Your task to perform on an android device: Go to Yahoo.com Image 0: 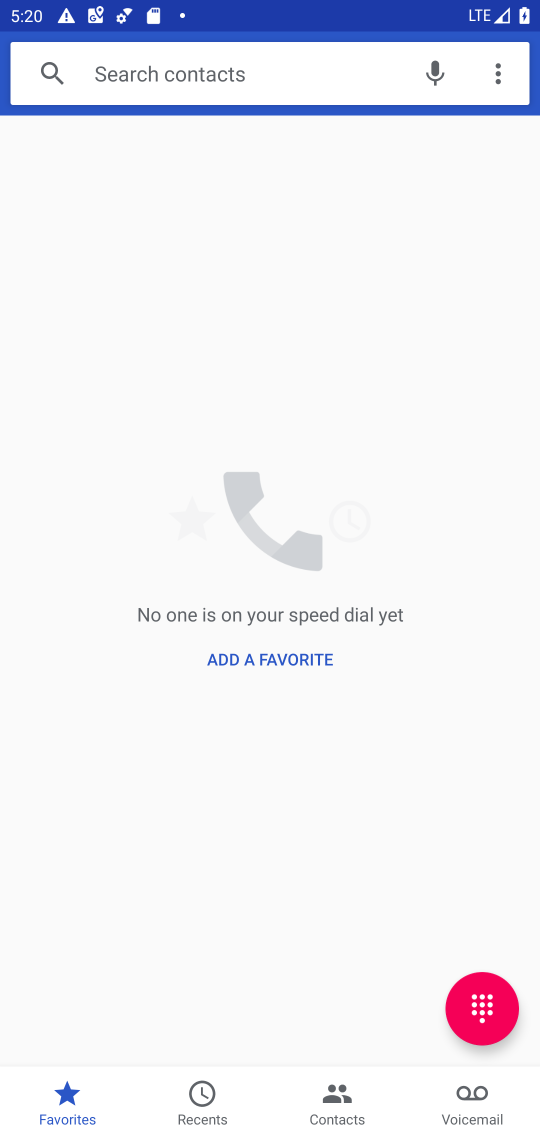
Step 0: press home button
Your task to perform on an android device: Go to Yahoo.com Image 1: 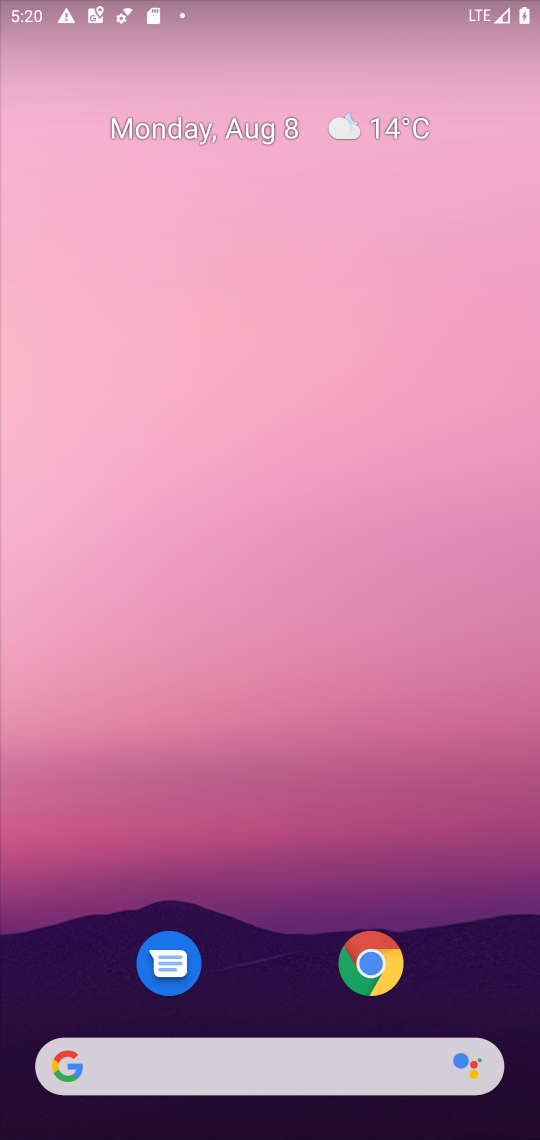
Step 1: click (363, 961)
Your task to perform on an android device: Go to Yahoo.com Image 2: 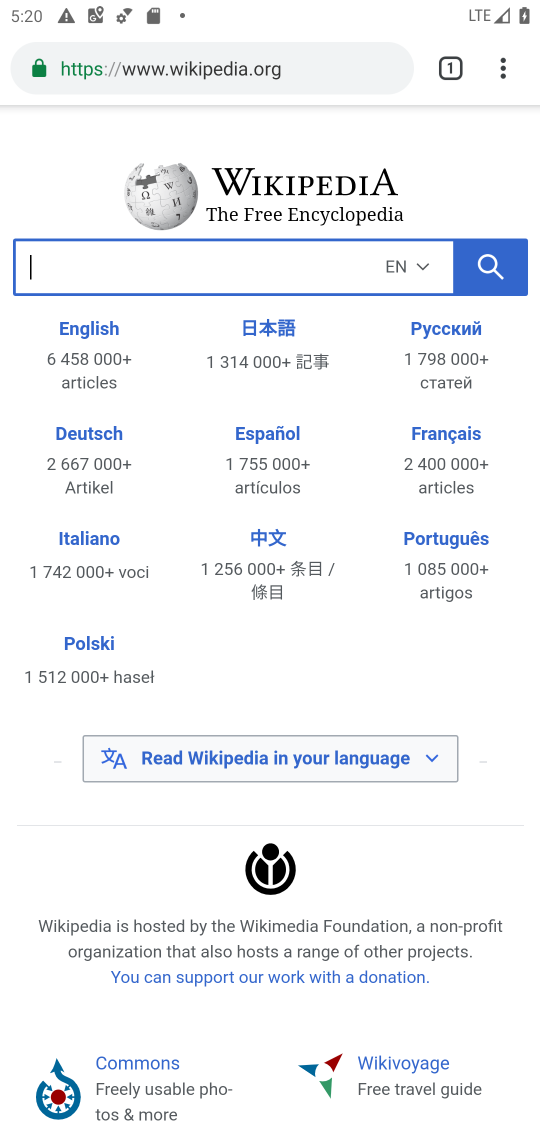
Step 2: click (269, 69)
Your task to perform on an android device: Go to Yahoo.com Image 3: 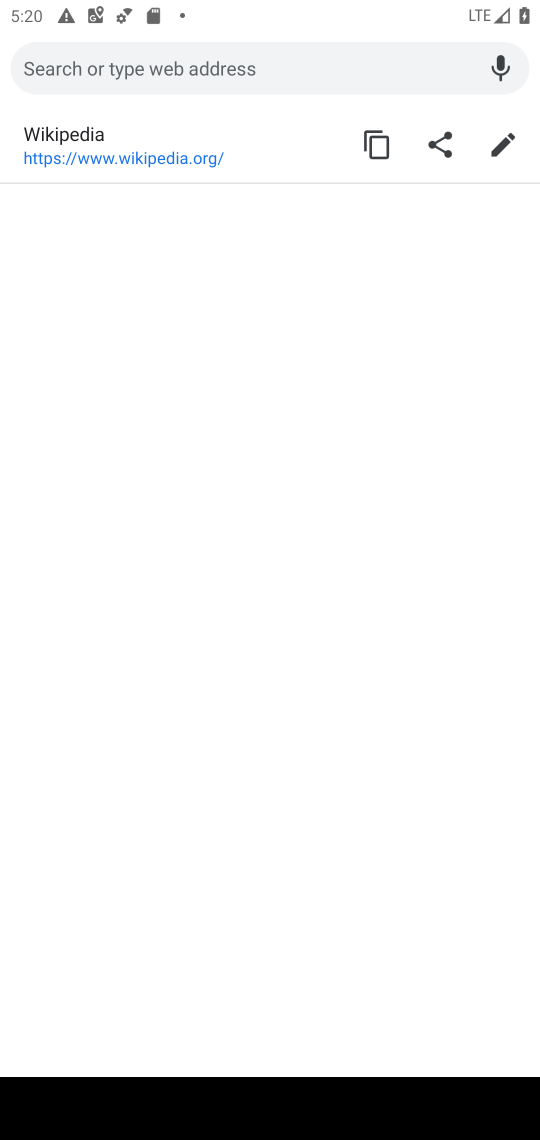
Step 3: type "yahoo.com"
Your task to perform on an android device: Go to Yahoo.com Image 4: 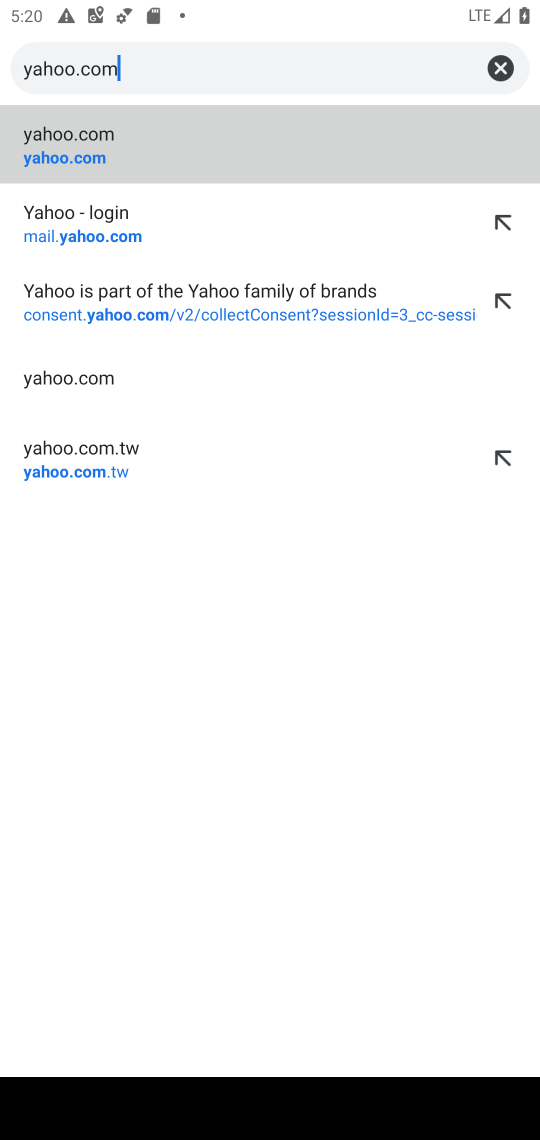
Step 4: click (270, 140)
Your task to perform on an android device: Go to Yahoo.com Image 5: 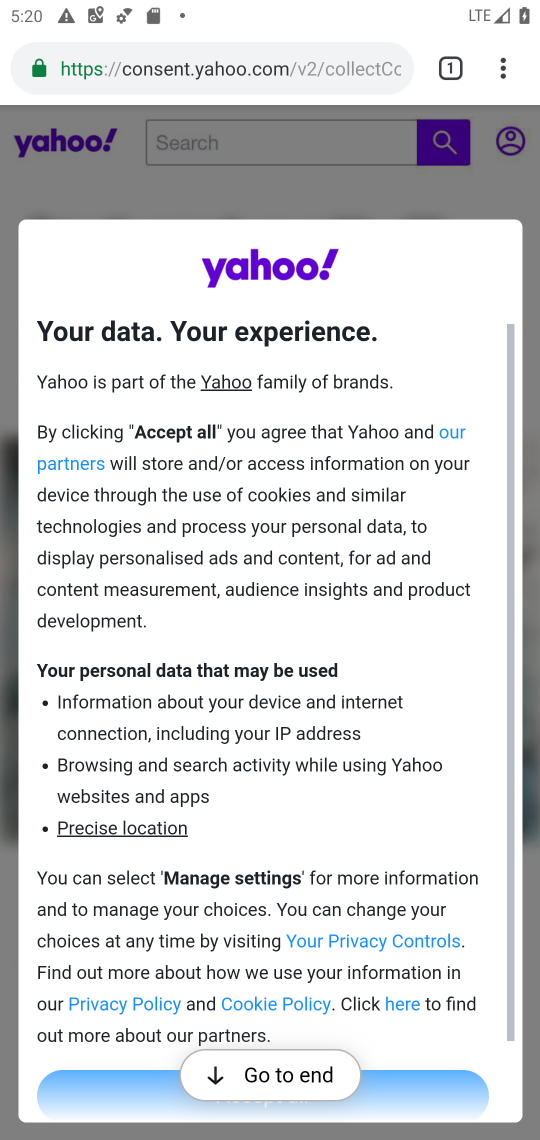
Step 5: task complete